Your task to perform on an android device: Open Google Chrome and open the bookmarks view Image 0: 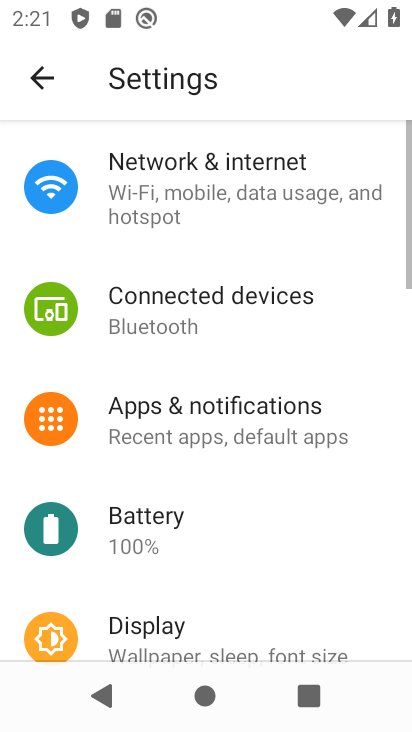
Step 0: press home button
Your task to perform on an android device: Open Google Chrome and open the bookmarks view Image 1: 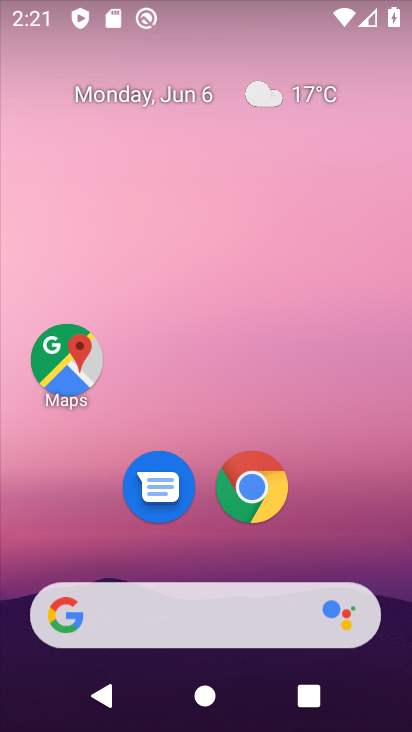
Step 1: click (258, 506)
Your task to perform on an android device: Open Google Chrome and open the bookmarks view Image 2: 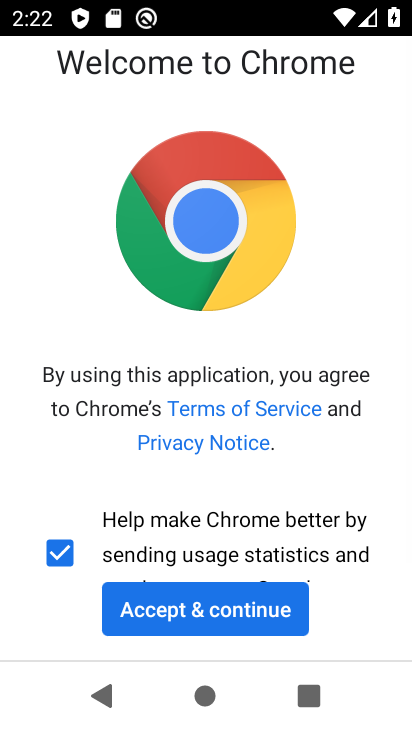
Step 2: click (244, 616)
Your task to perform on an android device: Open Google Chrome and open the bookmarks view Image 3: 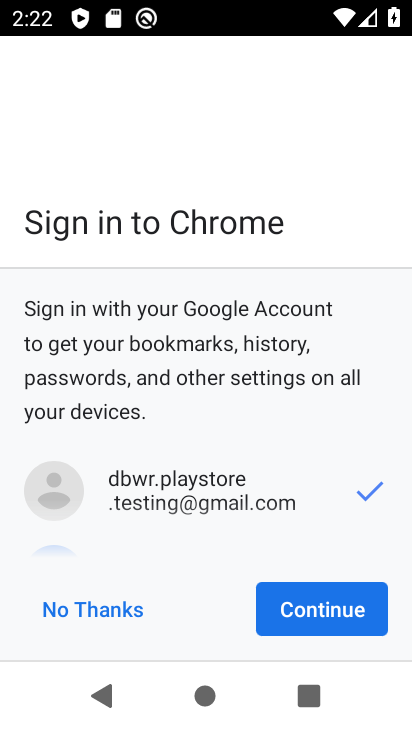
Step 3: click (338, 620)
Your task to perform on an android device: Open Google Chrome and open the bookmarks view Image 4: 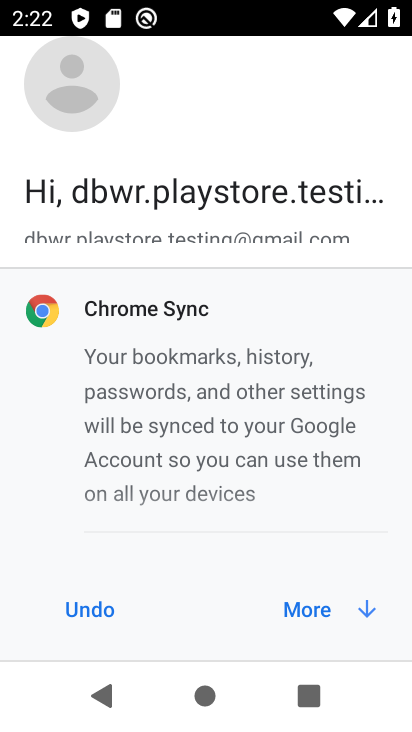
Step 4: click (333, 611)
Your task to perform on an android device: Open Google Chrome and open the bookmarks view Image 5: 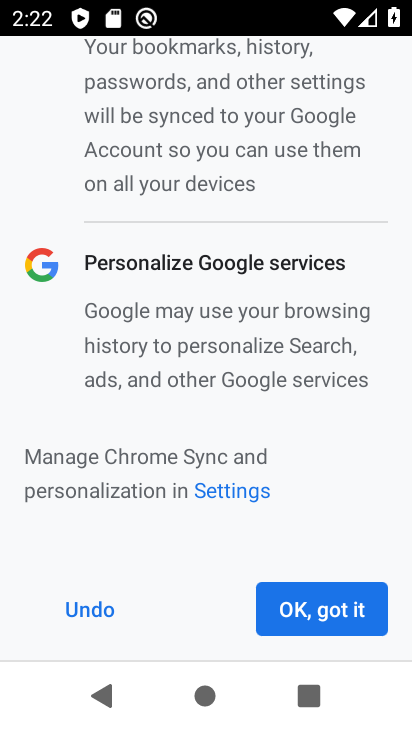
Step 5: click (333, 612)
Your task to perform on an android device: Open Google Chrome and open the bookmarks view Image 6: 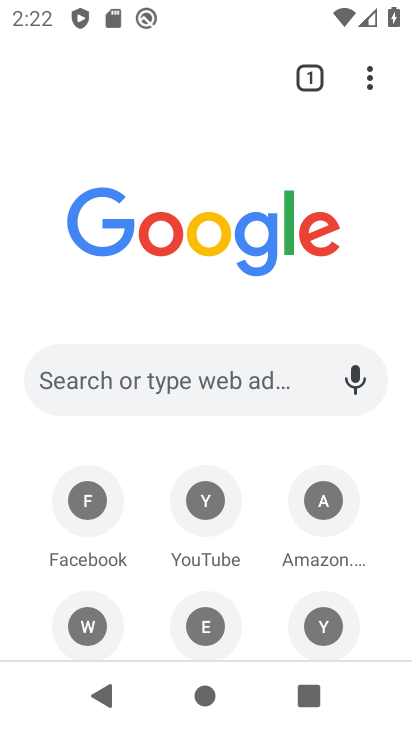
Step 6: task complete